Your task to perform on an android device: turn off translation in the chrome app Image 0: 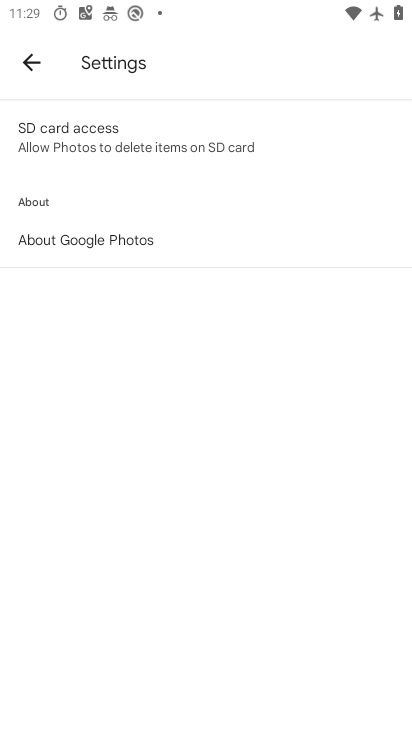
Step 0: press back button
Your task to perform on an android device: turn off translation in the chrome app Image 1: 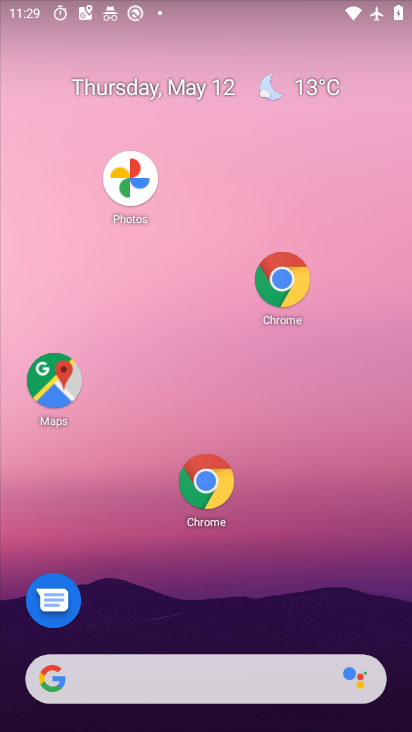
Step 1: drag from (366, 579) to (208, 128)
Your task to perform on an android device: turn off translation in the chrome app Image 2: 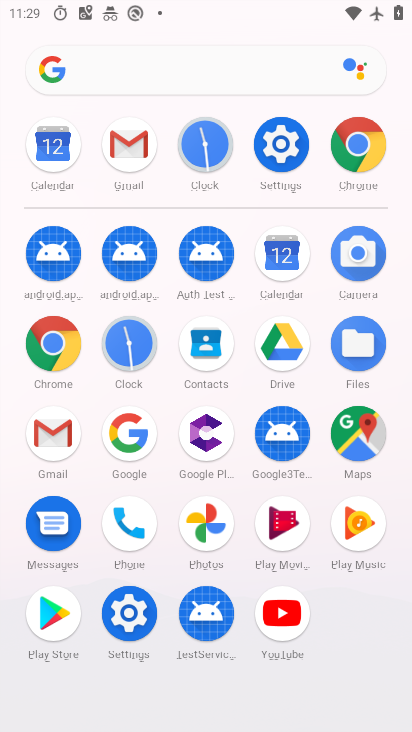
Step 2: click (348, 148)
Your task to perform on an android device: turn off translation in the chrome app Image 3: 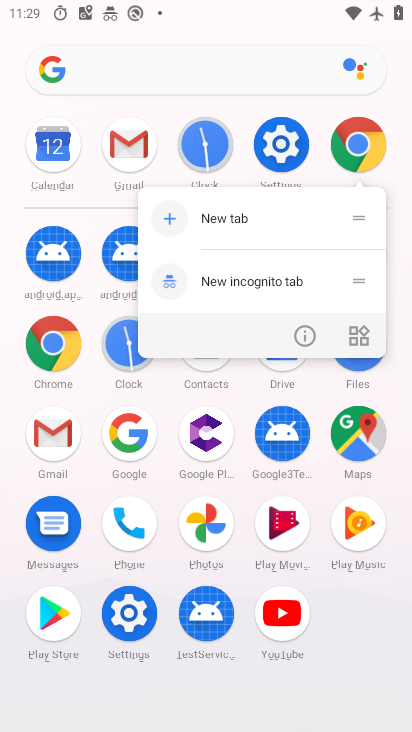
Step 3: click (164, 374)
Your task to perform on an android device: turn off translation in the chrome app Image 4: 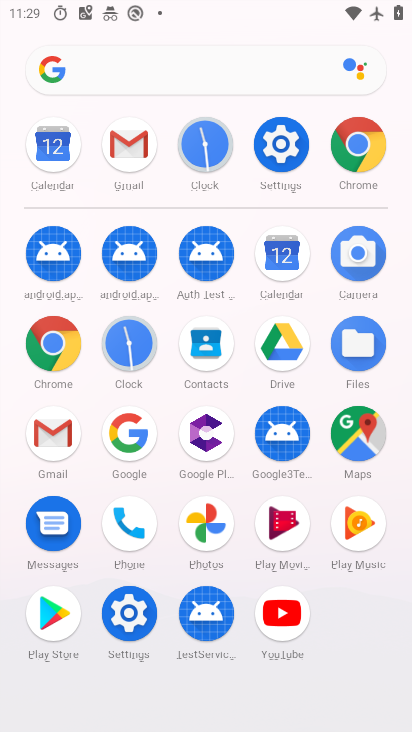
Step 4: click (358, 149)
Your task to perform on an android device: turn off translation in the chrome app Image 5: 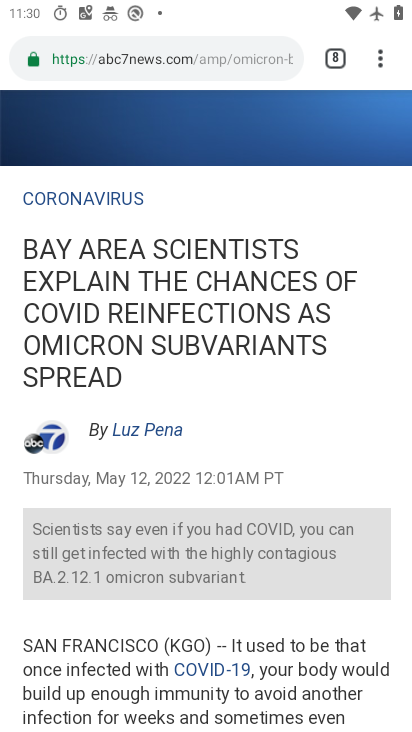
Step 5: drag from (375, 61) to (157, 635)
Your task to perform on an android device: turn off translation in the chrome app Image 6: 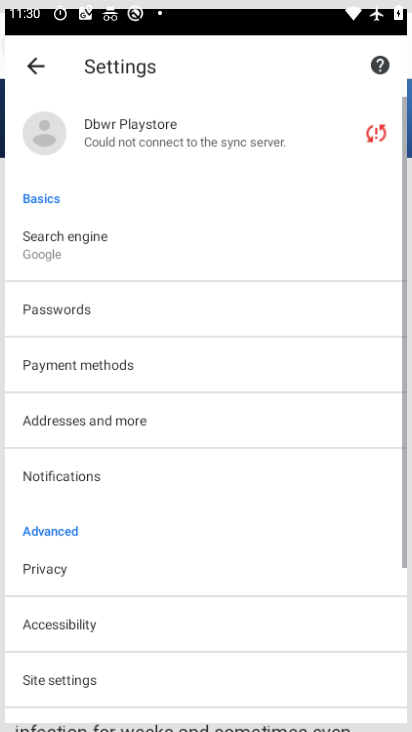
Step 6: click (157, 635)
Your task to perform on an android device: turn off translation in the chrome app Image 7: 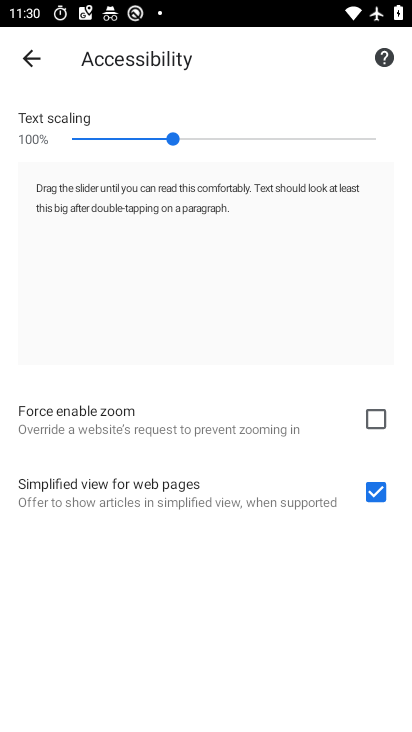
Step 7: click (29, 58)
Your task to perform on an android device: turn off translation in the chrome app Image 8: 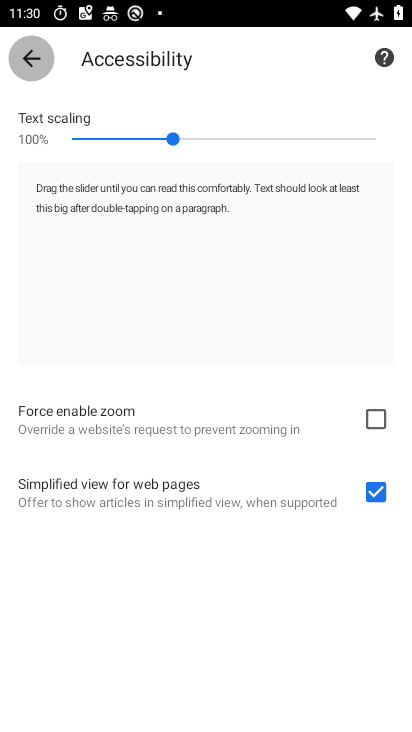
Step 8: click (29, 69)
Your task to perform on an android device: turn off translation in the chrome app Image 9: 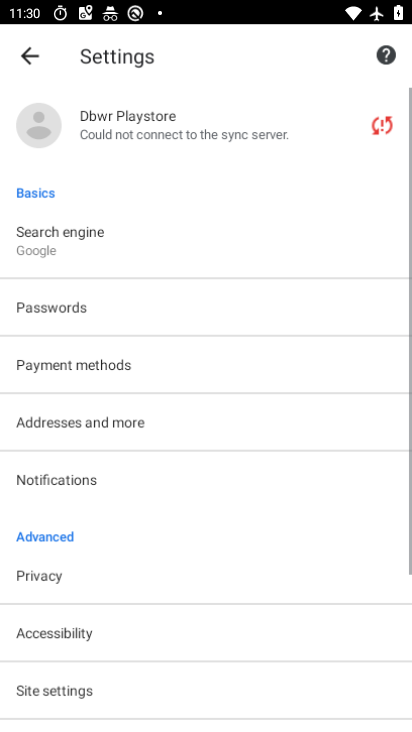
Step 9: click (29, 69)
Your task to perform on an android device: turn off translation in the chrome app Image 10: 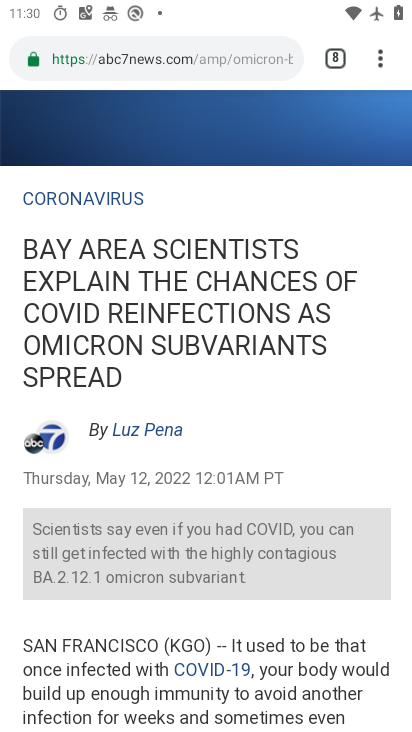
Step 10: press back button
Your task to perform on an android device: turn off translation in the chrome app Image 11: 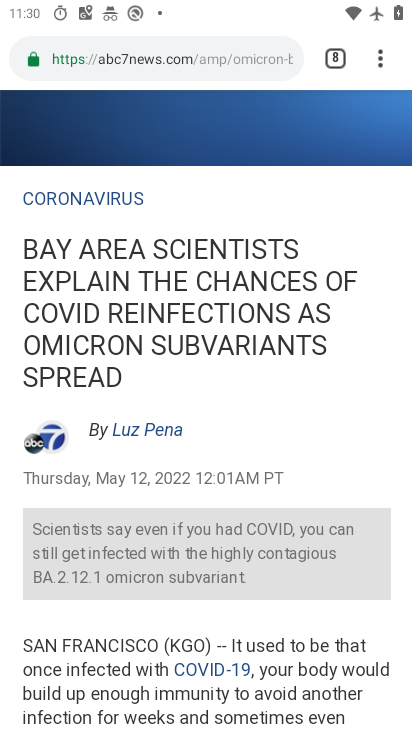
Step 11: press back button
Your task to perform on an android device: turn off translation in the chrome app Image 12: 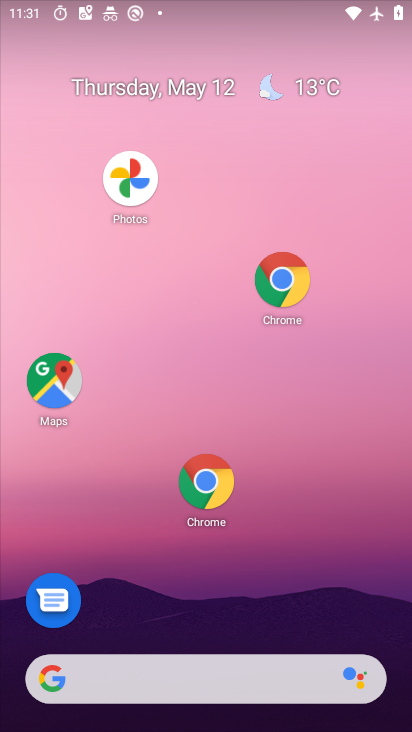
Step 12: drag from (228, 491) to (127, 172)
Your task to perform on an android device: turn off translation in the chrome app Image 13: 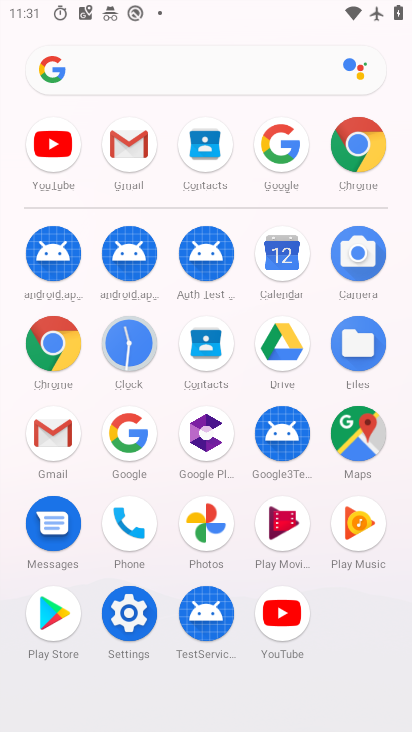
Step 13: click (362, 147)
Your task to perform on an android device: turn off translation in the chrome app Image 14: 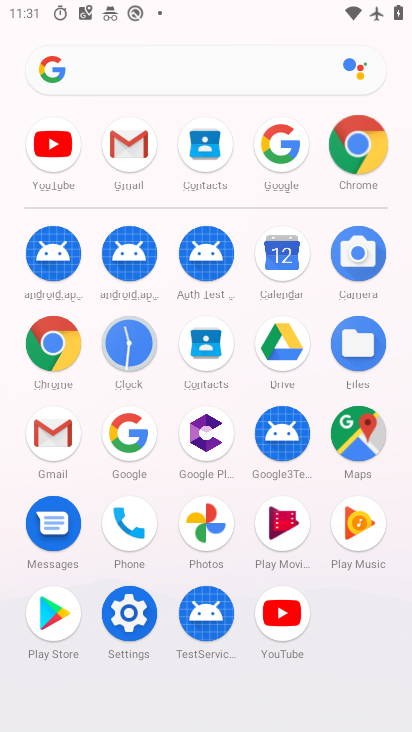
Step 14: click (363, 148)
Your task to perform on an android device: turn off translation in the chrome app Image 15: 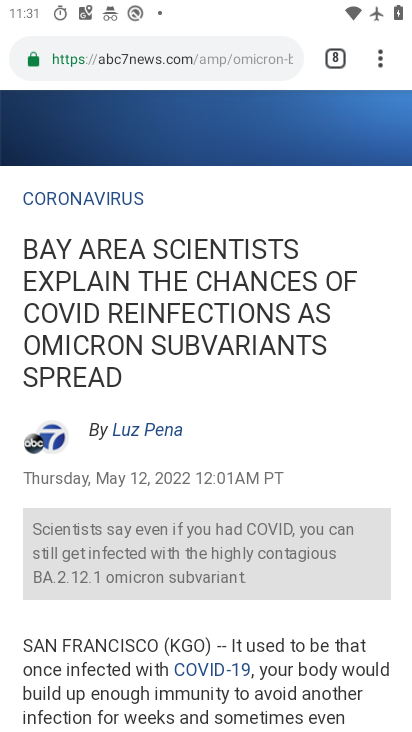
Step 15: drag from (383, 58) to (162, 632)
Your task to perform on an android device: turn off translation in the chrome app Image 16: 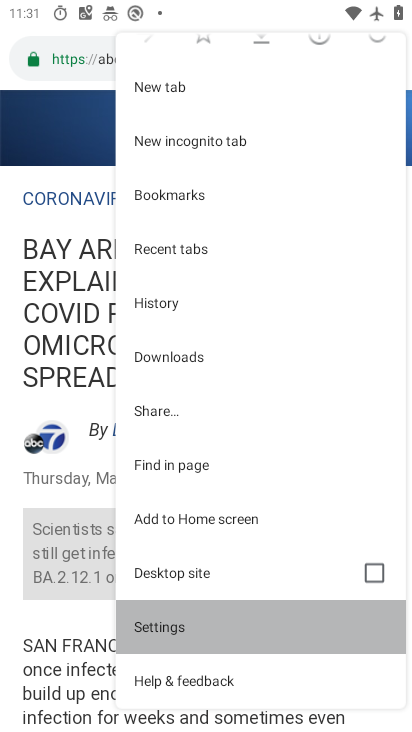
Step 16: click (162, 632)
Your task to perform on an android device: turn off translation in the chrome app Image 17: 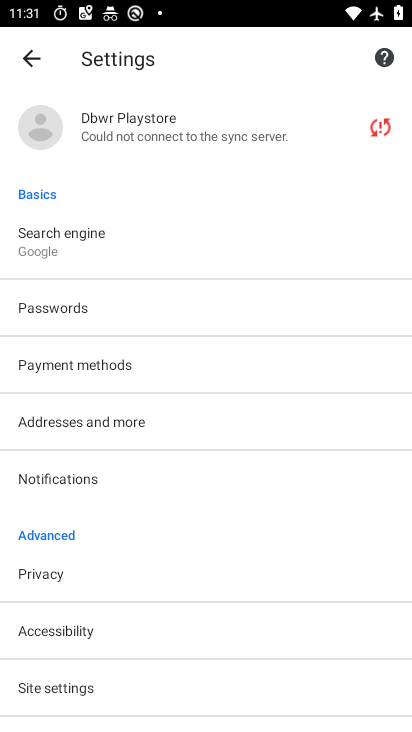
Step 17: drag from (71, 641) to (151, 224)
Your task to perform on an android device: turn off translation in the chrome app Image 18: 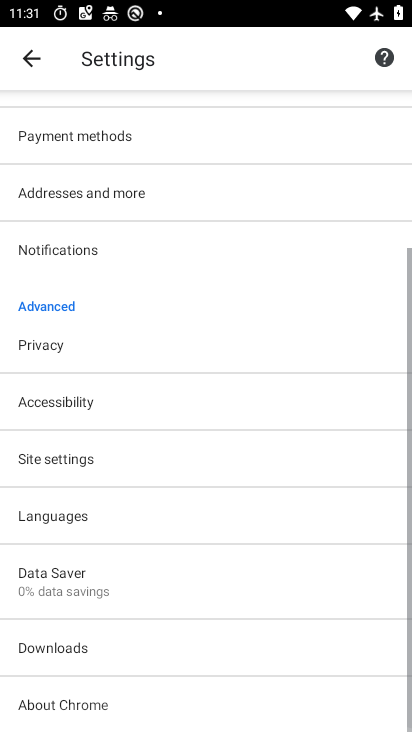
Step 18: drag from (200, 611) to (188, 96)
Your task to perform on an android device: turn off translation in the chrome app Image 19: 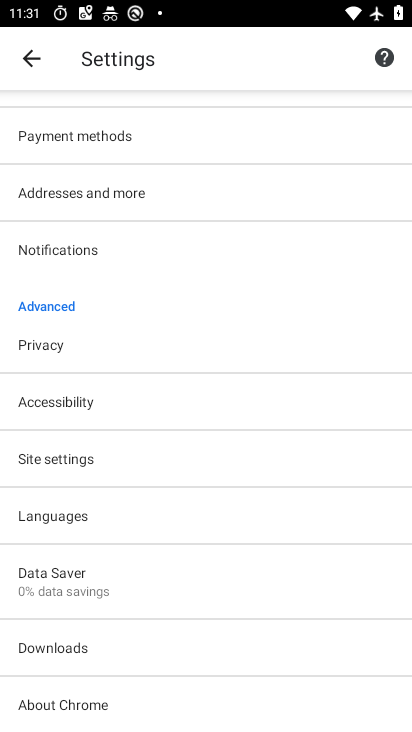
Step 19: click (56, 520)
Your task to perform on an android device: turn off translation in the chrome app Image 20: 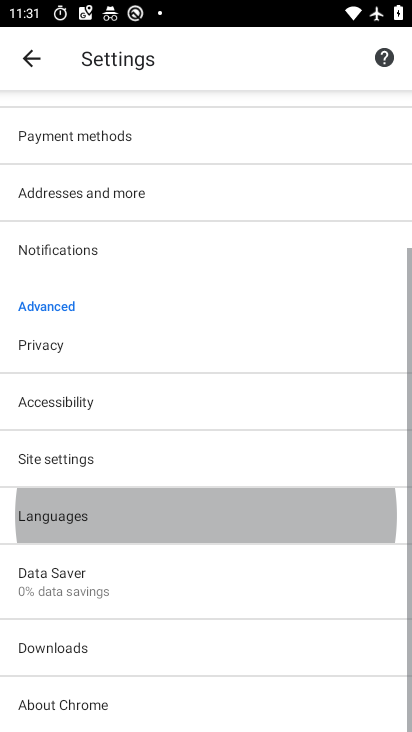
Step 20: click (55, 519)
Your task to perform on an android device: turn off translation in the chrome app Image 21: 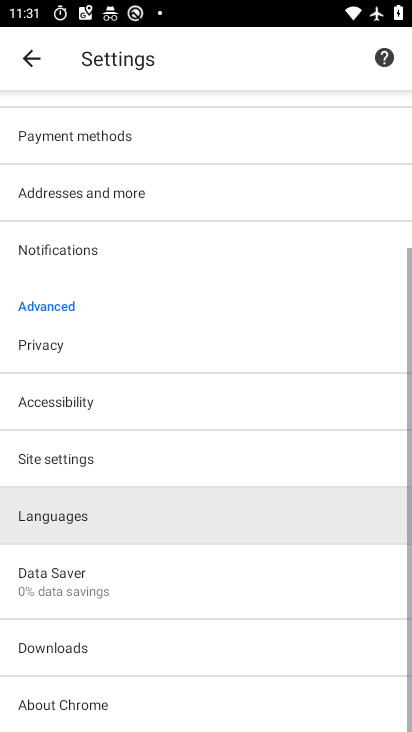
Step 21: click (55, 519)
Your task to perform on an android device: turn off translation in the chrome app Image 22: 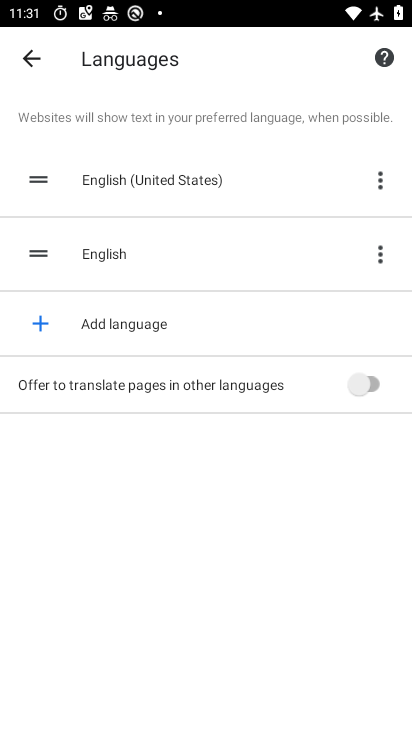
Step 22: click (354, 369)
Your task to perform on an android device: turn off translation in the chrome app Image 23: 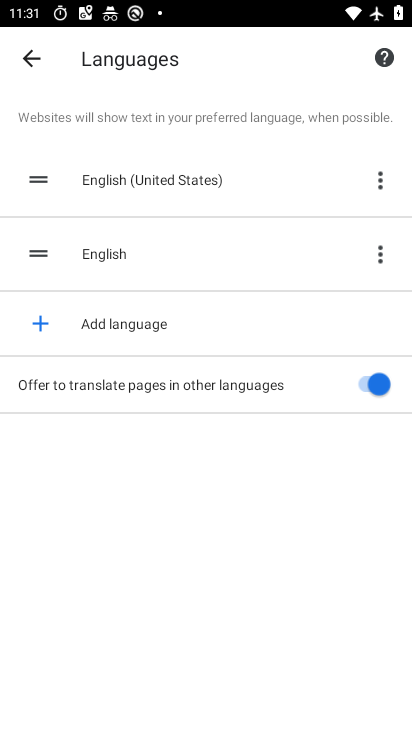
Step 23: task complete